Your task to perform on an android device: read, delete, or share a saved page in the chrome app Image 0: 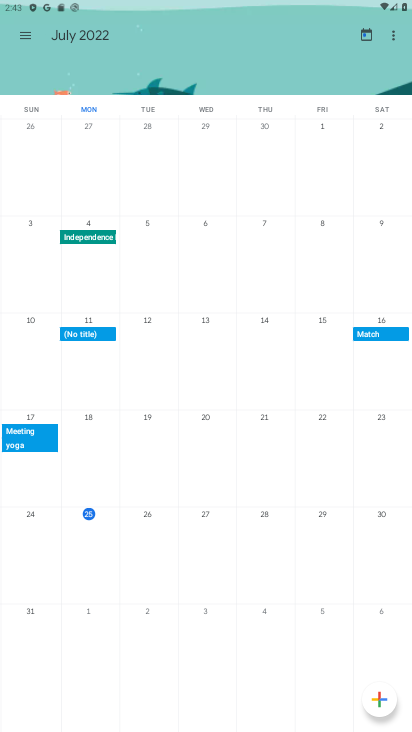
Step 0: press home button
Your task to perform on an android device: read, delete, or share a saved page in the chrome app Image 1: 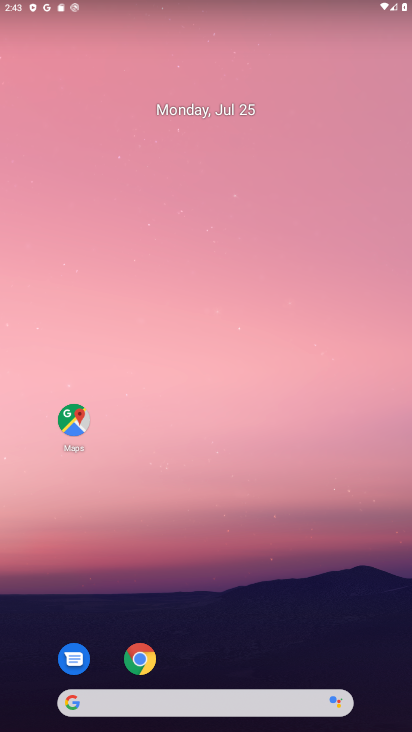
Step 1: drag from (227, 678) to (208, 102)
Your task to perform on an android device: read, delete, or share a saved page in the chrome app Image 2: 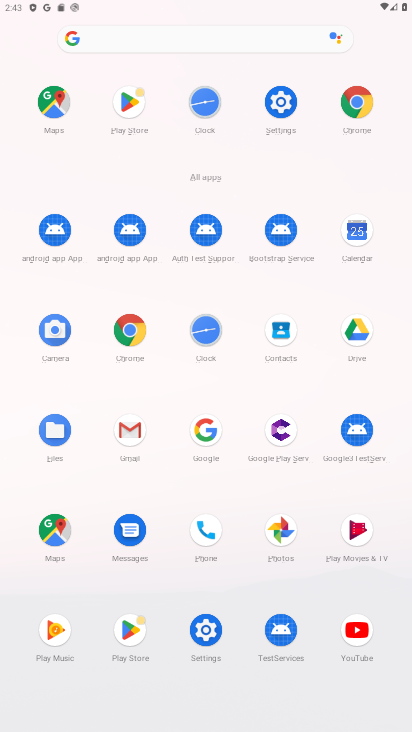
Step 2: click (136, 337)
Your task to perform on an android device: read, delete, or share a saved page in the chrome app Image 3: 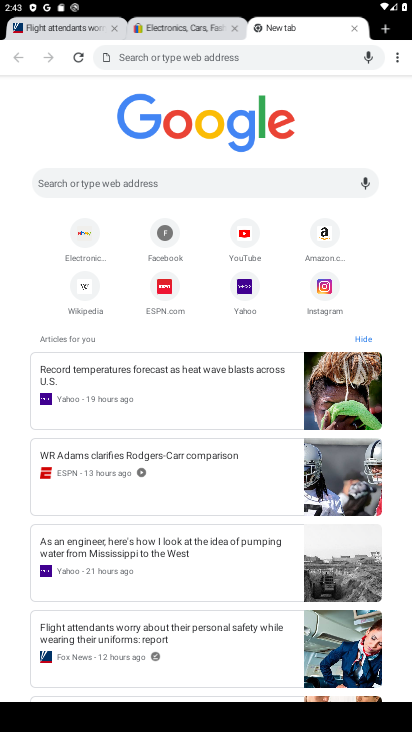
Step 3: click (398, 51)
Your task to perform on an android device: read, delete, or share a saved page in the chrome app Image 4: 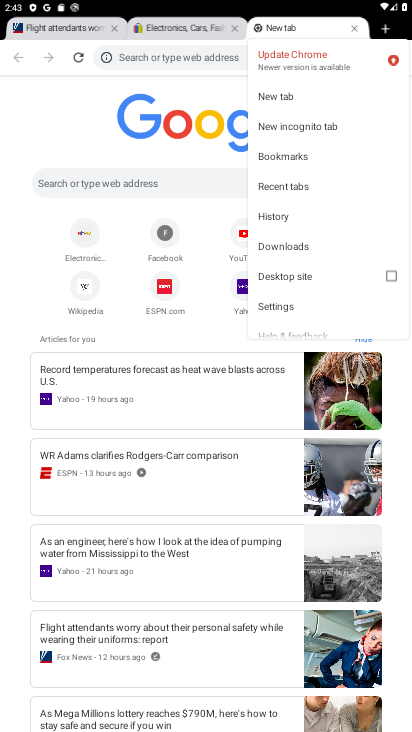
Step 4: click (284, 299)
Your task to perform on an android device: read, delete, or share a saved page in the chrome app Image 5: 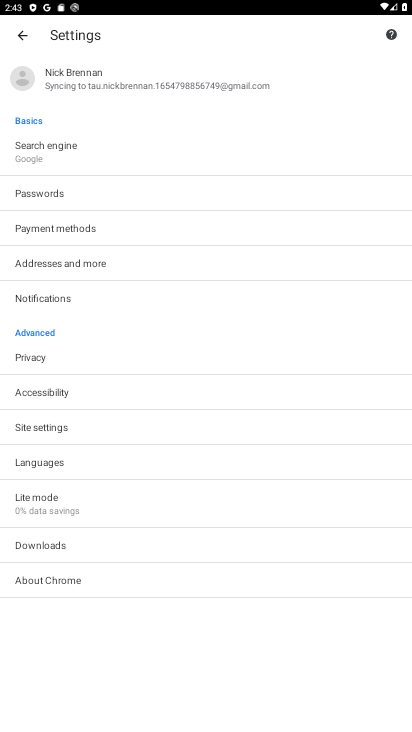
Step 5: task complete